Your task to perform on an android device: turn vacation reply on in the gmail app Image 0: 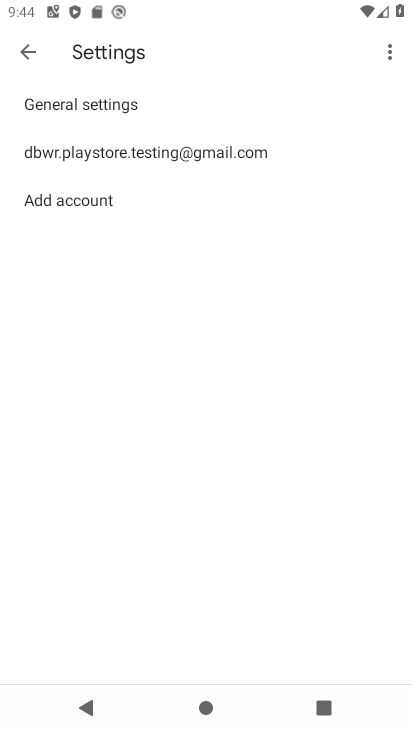
Step 0: click (169, 157)
Your task to perform on an android device: turn vacation reply on in the gmail app Image 1: 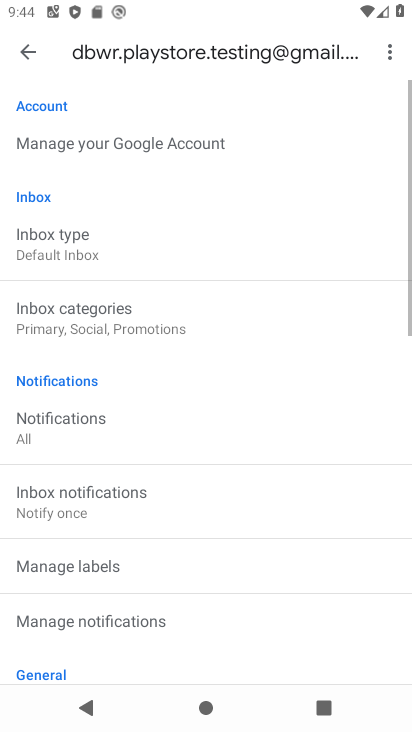
Step 1: drag from (173, 601) to (298, 96)
Your task to perform on an android device: turn vacation reply on in the gmail app Image 2: 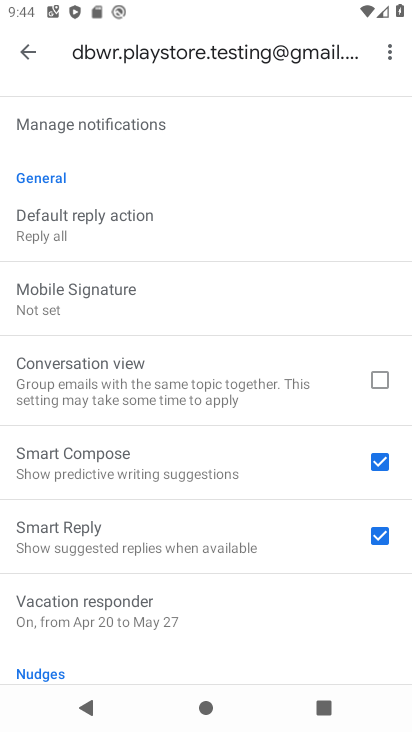
Step 2: click (118, 619)
Your task to perform on an android device: turn vacation reply on in the gmail app Image 3: 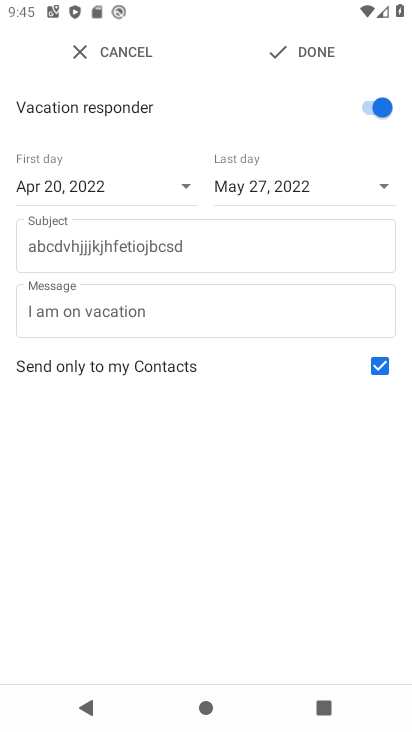
Step 3: task complete